Your task to perform on an android device: turn off location history Image 0: 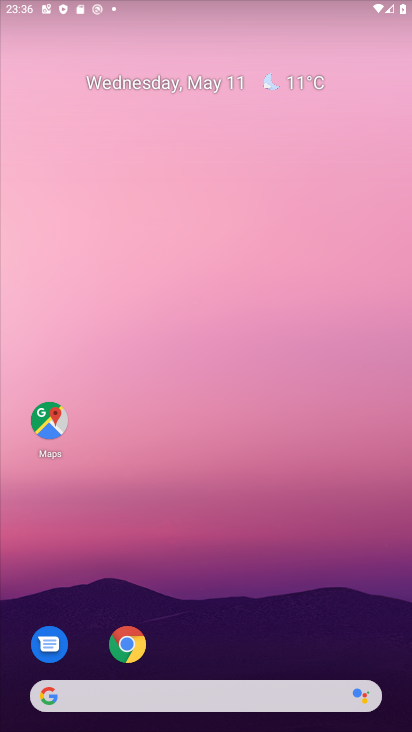
Step 0: drag from (224, 650) to (250, 126)
Your task to perform on an android device: turn off location history Image 1: 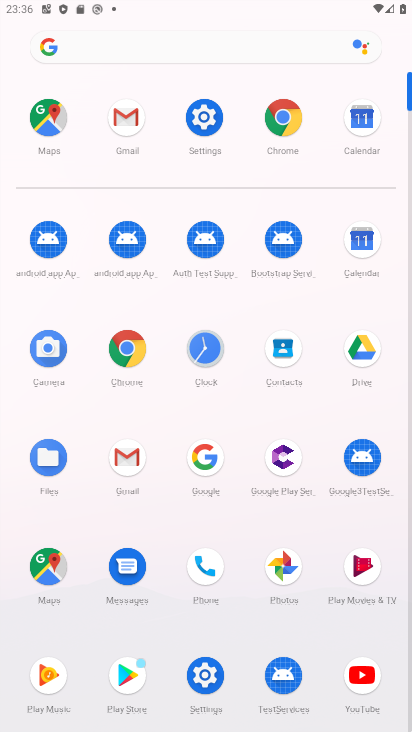
Step 1: click (200, 122)
Your task to perform on an android device: turn off location history Image 2: 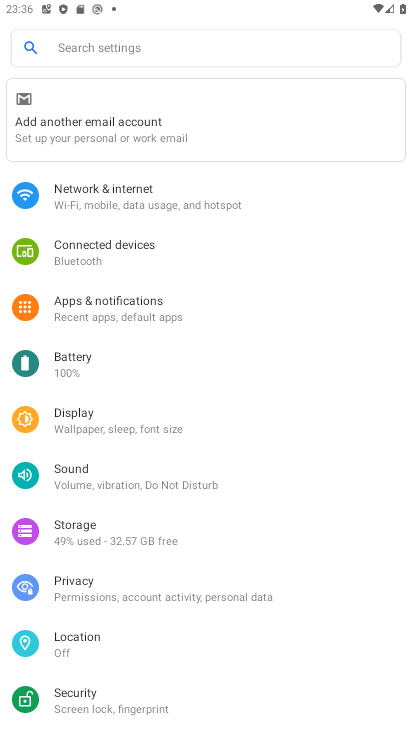
Step 2: click (152, 194)
Your task to perform on an android device: turn off location history Image 3: 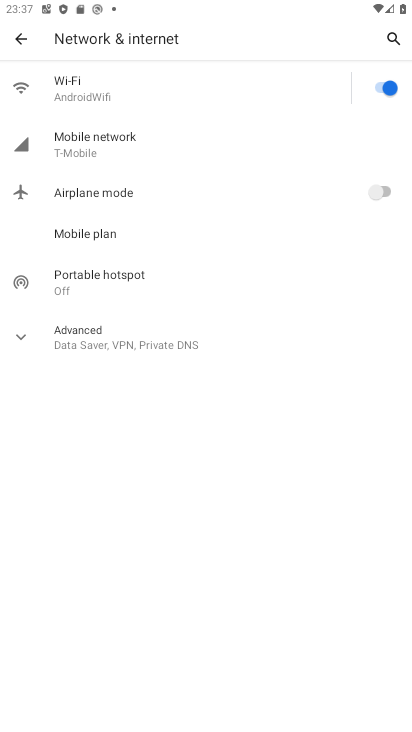
Step 3: click (32, 328)
Your task to perform on an android device: turn off location history Image 4: 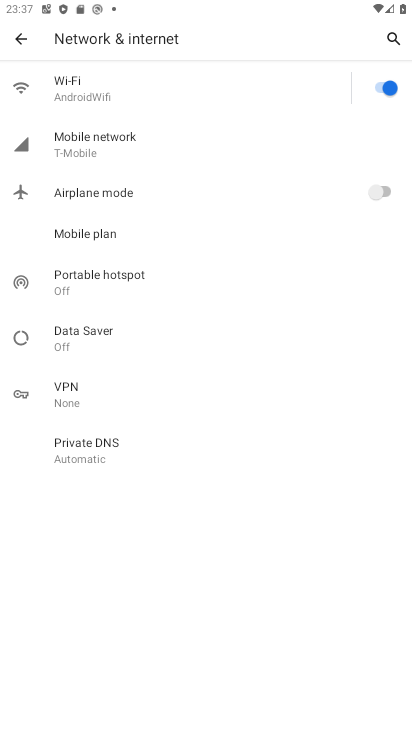
Step 4: press home button
Your task to perform on an android device: turn off location history Image 5: 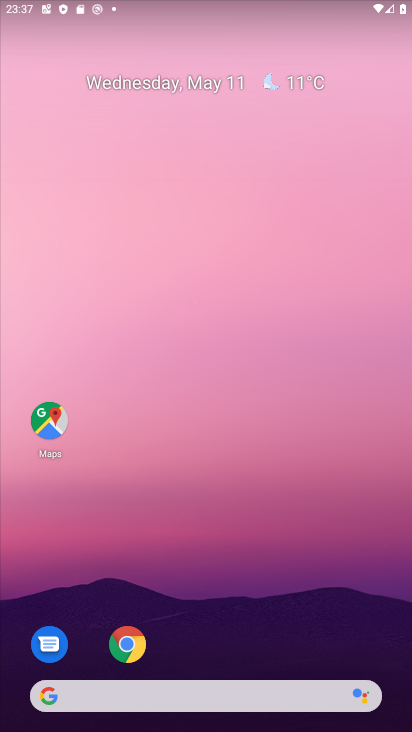
Step 5: drag from (202, 637) to (244, 76)
Your task to perform on an android device: turn off location history Image 6: 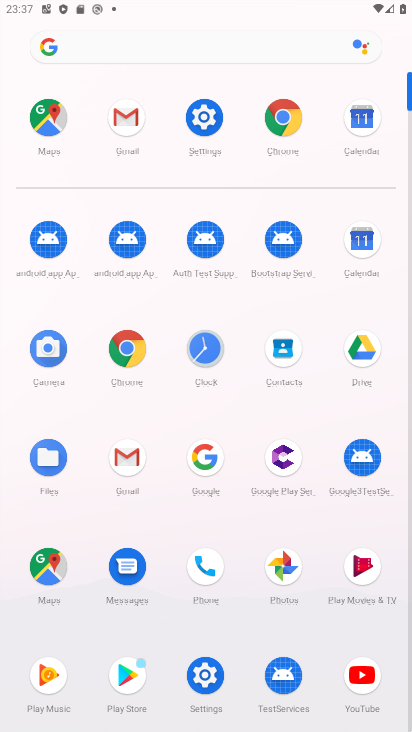
Step 6: click (198, 108)
Your task to perform on an android device: turn off location history Image 7: 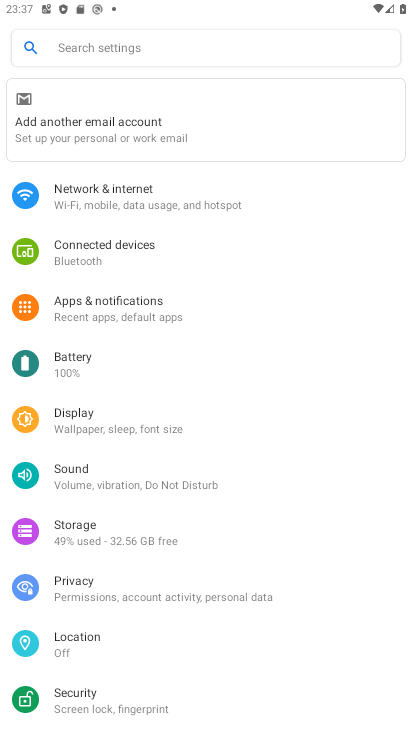
Step 7: drag from (114, 668) to (177, 236)
Your task to perform on an android device: turn off location history Image 8: 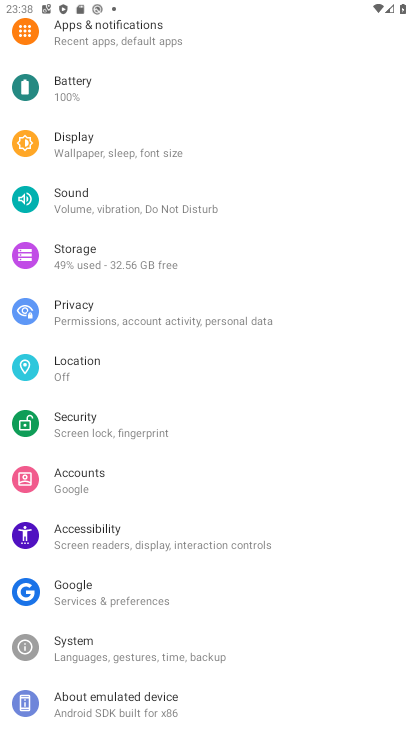
Step 8: click (99, 372)
Your task to perform on an android device: turn off location history Image 9: 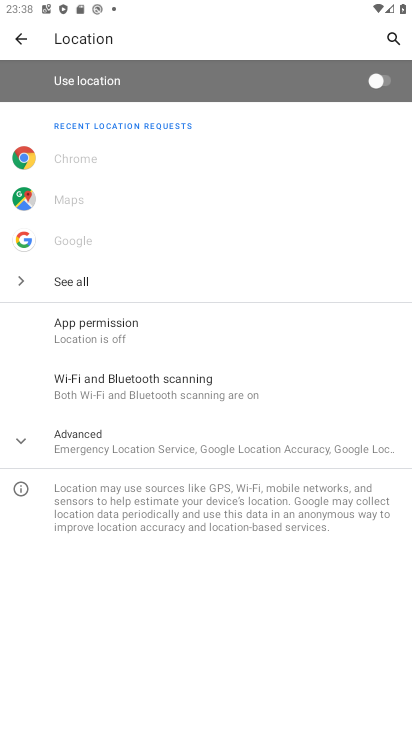
Step 9: click (45, 436)
Your task to perform on an android device: turn off location history Image 10: 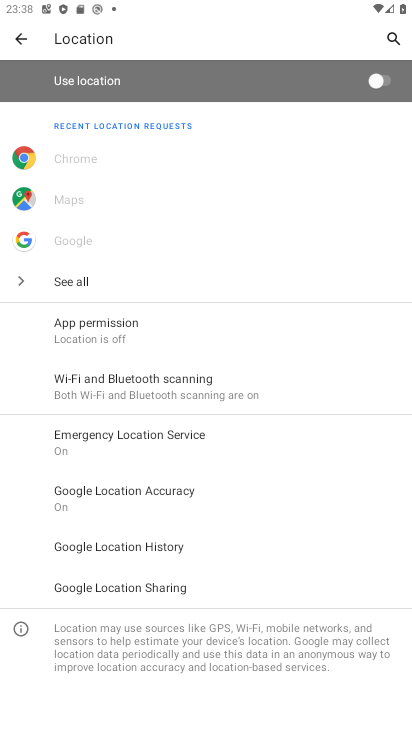
Step 10: click (126, 547)
Your task to perform on an android device: turn off location history Image 11: 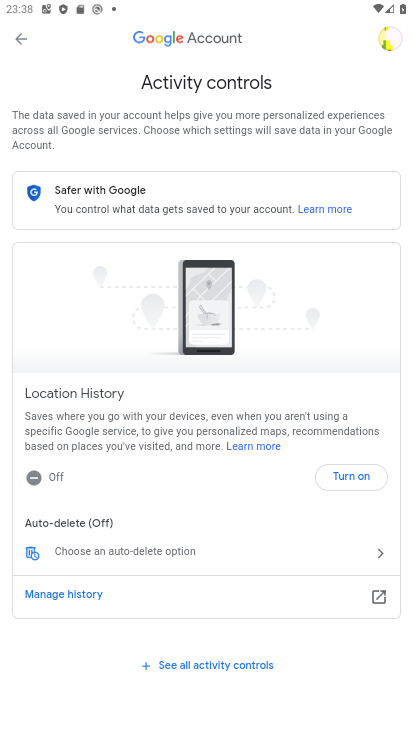
Step 11: task complete